Your task to perform on an android device: Find coffee shops on Maps Image 0: 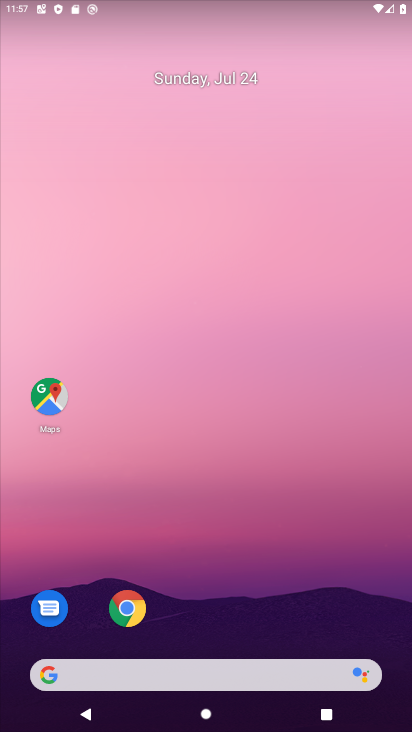
Step 0: click (47, 399)
Your task to perform on an android device: Find coffee shops on Maps Image 1: 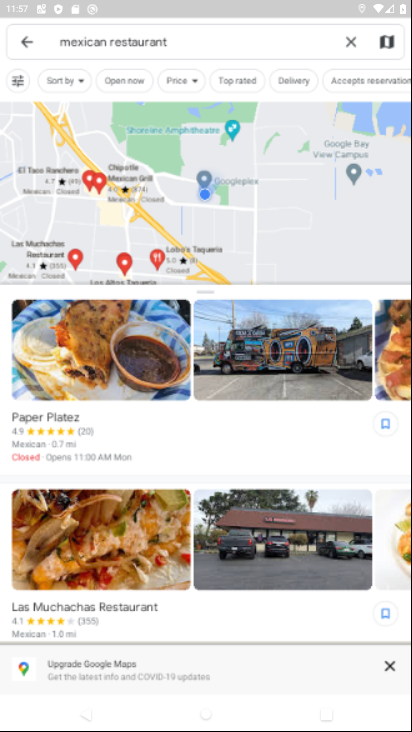
Step 1: click (354, 38)
Your task to perform on an android device: Find coffee shops on Maps Image 2: 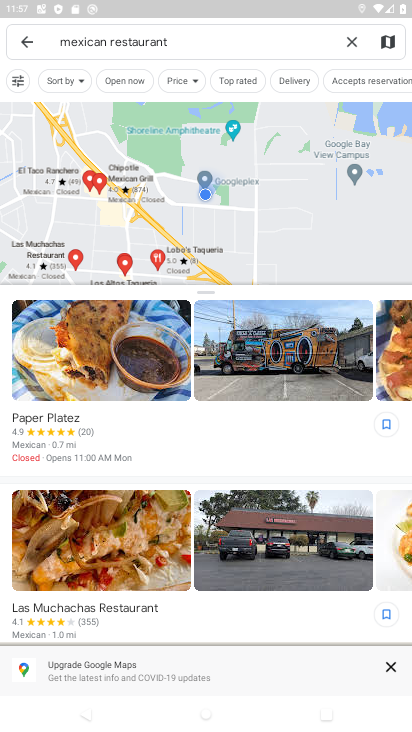
Step 2: click (354, 40)
Your task to perform on an android device: Find coffee shops on Maps Image 3: 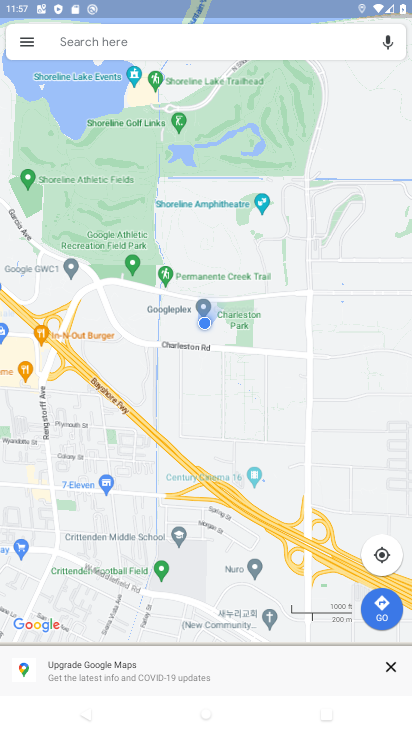
Step 3: click (83, 35)
Your task to perform on an android device: Find coffee shops on Maps Image 4: 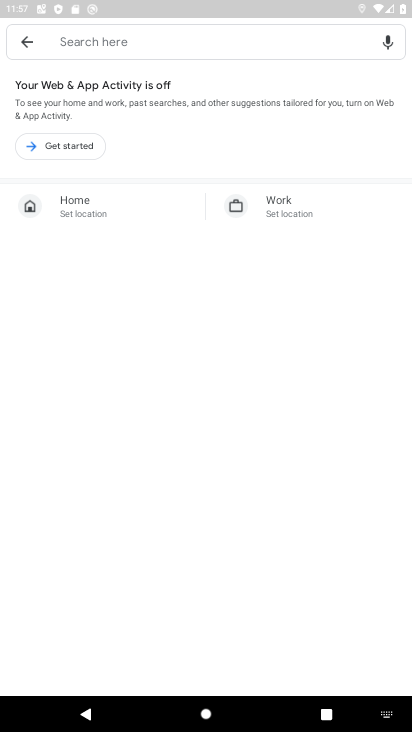
Step 4: type " coffee shops "
Your task to perform on an android device: Find coffee shops on Maps Image 5: 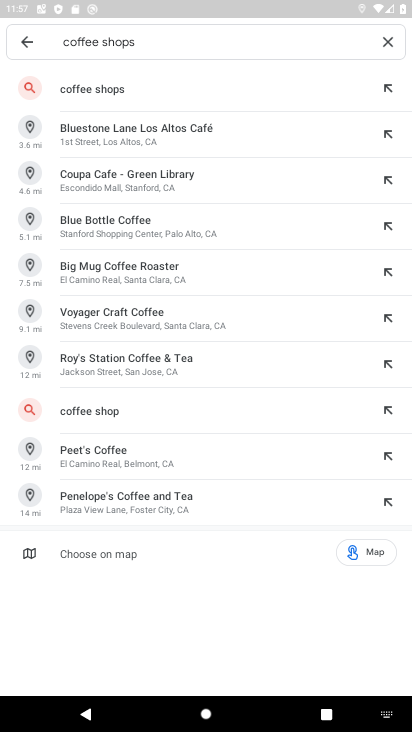
Step 5: click (100, 98)
Your task to perform on an android device: Find coffee shops on Maps Image 6: 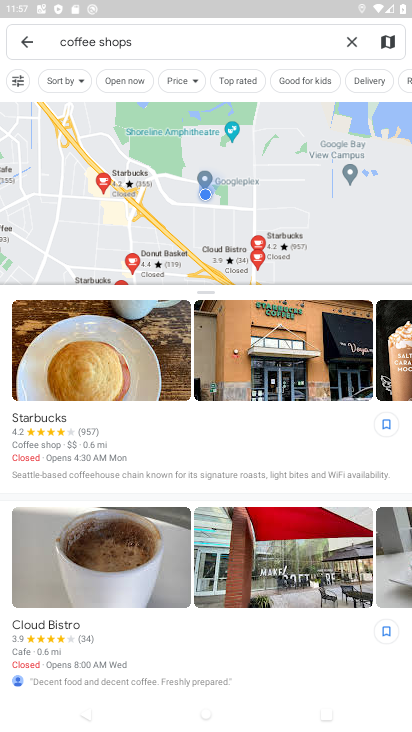
Step 6: task complete